Your task to perform on an android device: Open Amazon Image 0: 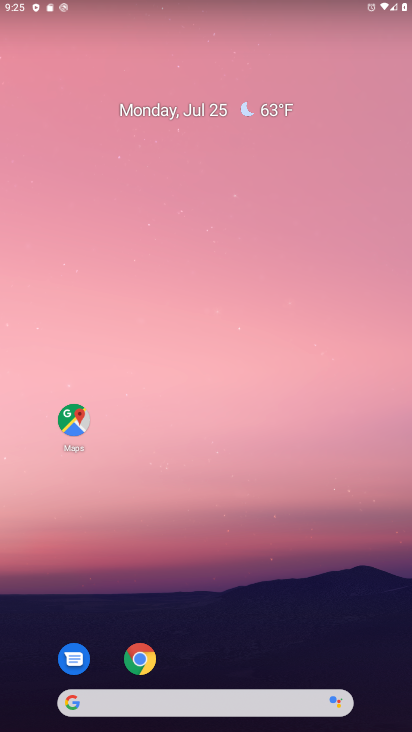
Step 0: click (141, 657)
Your task to perform on an android device: Open Amazon Image 1: 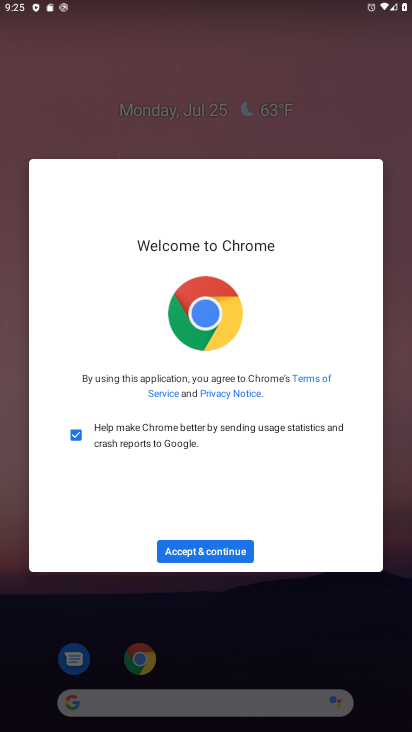
Step 1: click (211, 542)
Your task to perform on an android device: Open Amazon Image 2: 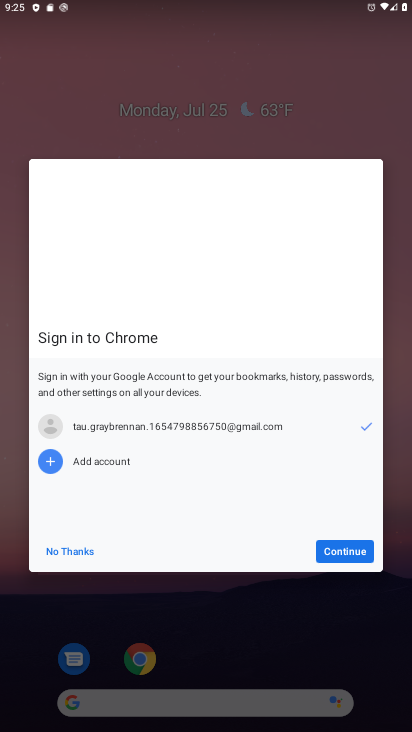
Step 2: click (347, 547)
Your task to perform on an android device: Open Amazon Image 3: 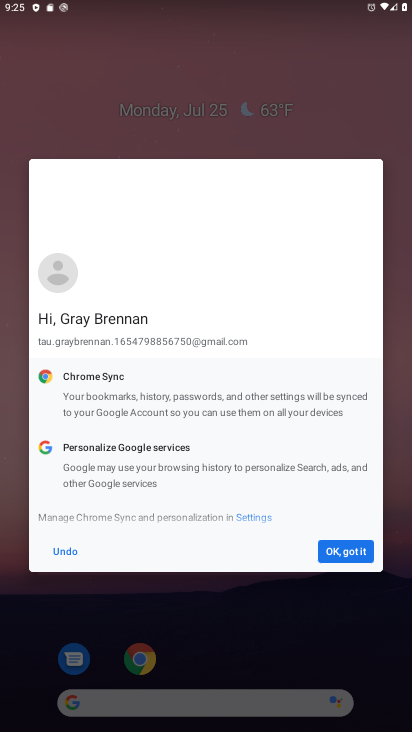
Step 3: click (337, 547)
Your task to perform on an android device: Open Amazon Image 4: 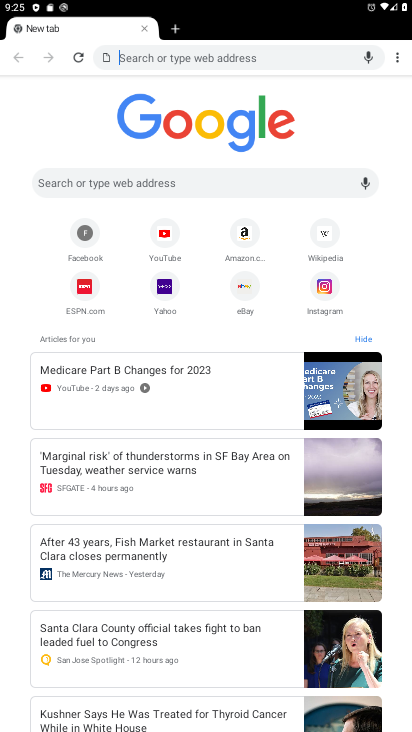
Step 4: click (247, 232)
Your task to perform on an android device: Open Amazon Image 5: 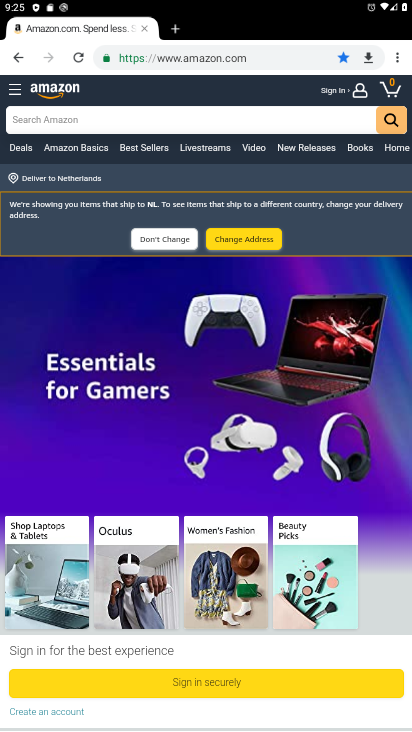
Step 5: task complete